Your task to perform on an android device: check battery use Image 0: 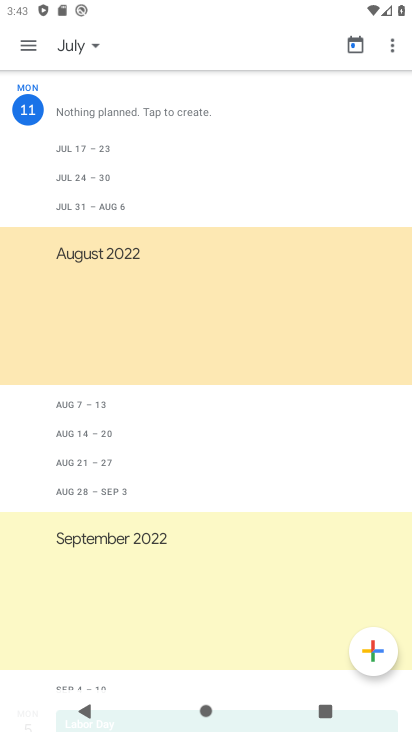
Step 0: press home button
Your task to perform on an android device: check battery use Image 1: 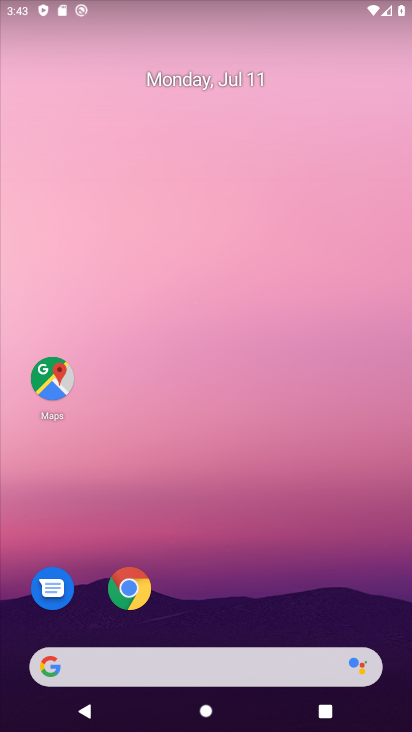
Step 1: drag from (196, 659) to (215, 184)
Your task to perform on an android device: check battery use Image 2: 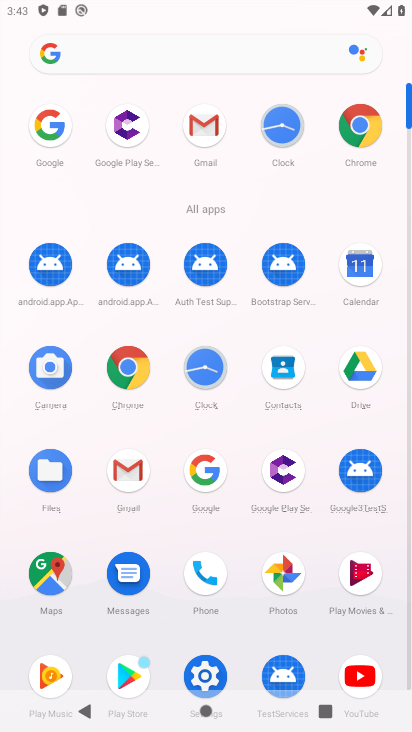
Step 2: click (192, 679)
Your task to perform on an android device: check battery use Image 3: 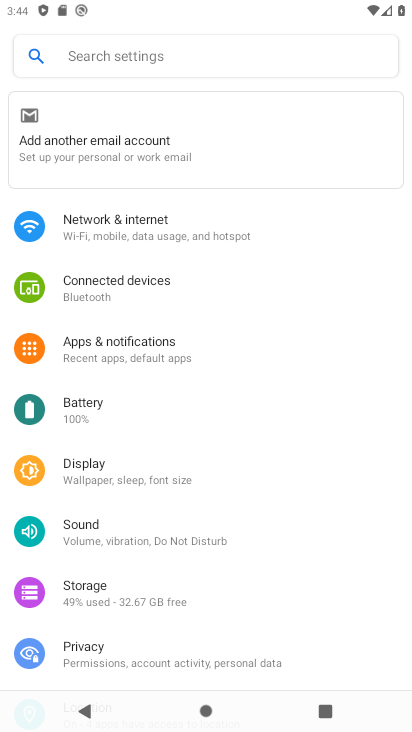
Step 3: click (99, 396)
Your task to perform on an android device: check battery use Image 4: 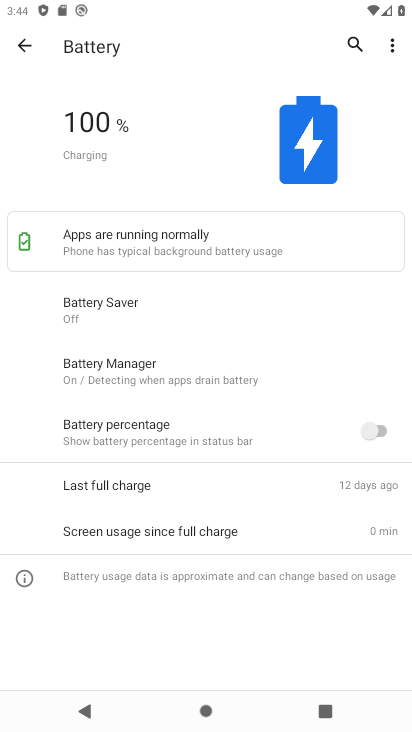
Step 4: click (393, 56)
Your task to perform on an android device: check battery use Image 5: 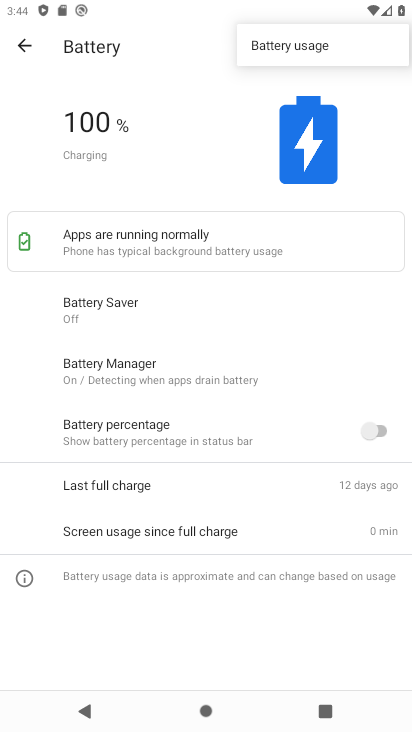
Step 5: click (329, 45)
Your task to perform on an android device: check battery use Image 6: 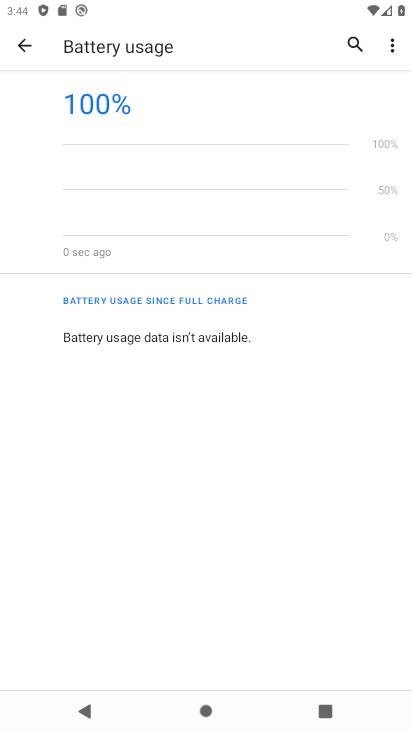
Step 6: task complete